Your task to perform on an android device: turn pop-ups off in chrome Image 0: 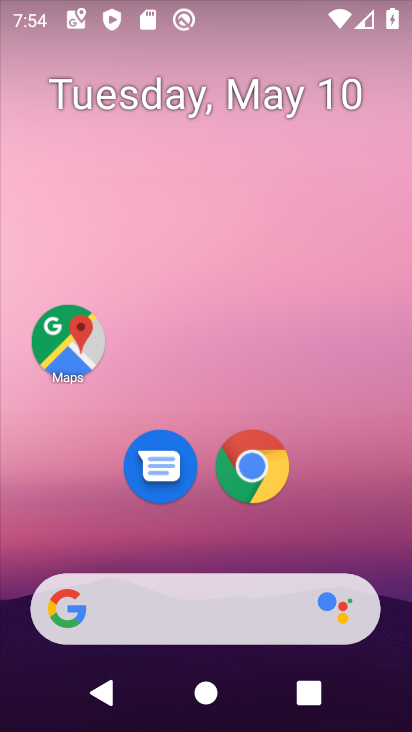
Step 0: click (249, 456)
Your task to perform on an android device: turn pop-ups off in chrome Image 1: 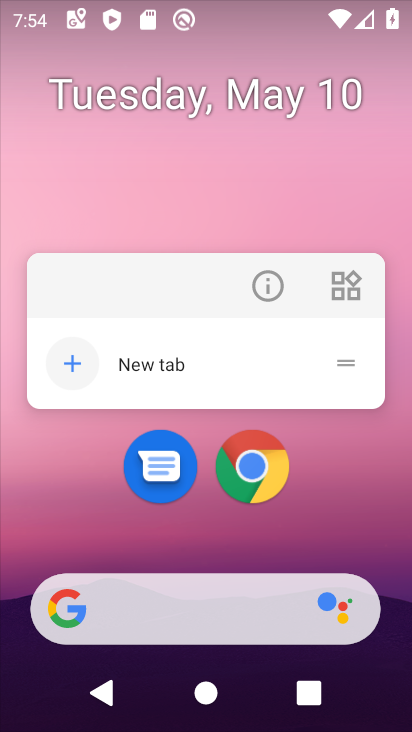
Step 1: click (249, 456)
Your task to perform on an android device: turn pop-ups off in chrome Image 2: 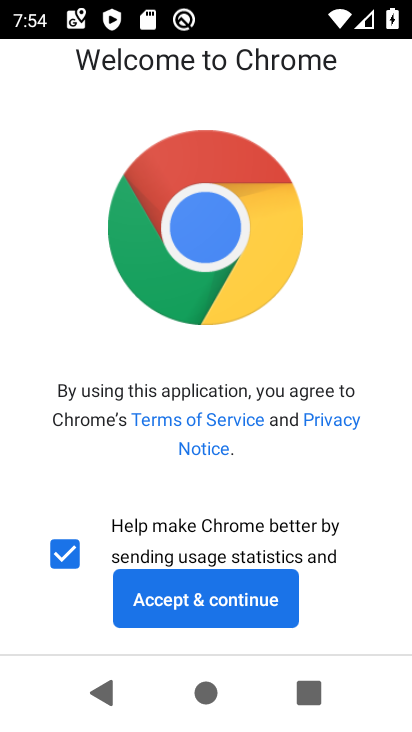
Step 2: click (211, 592)
Your task to perform on an android device: turn pop-ups off in chrome Image 3: 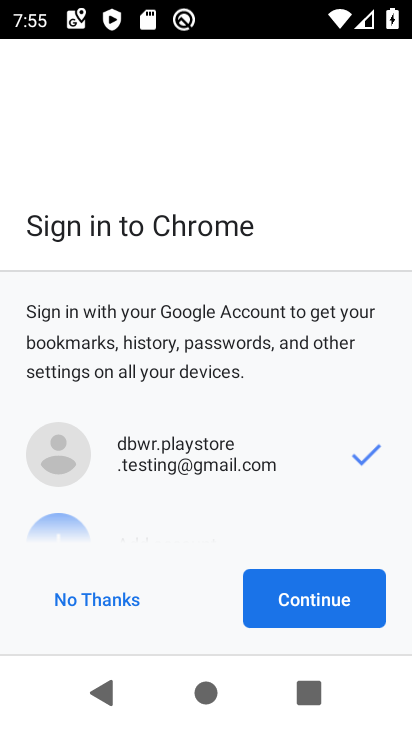
Step 3: click (356, 610)
Your task to perform on an android device: turn pop-ups off in chrome Image 4: 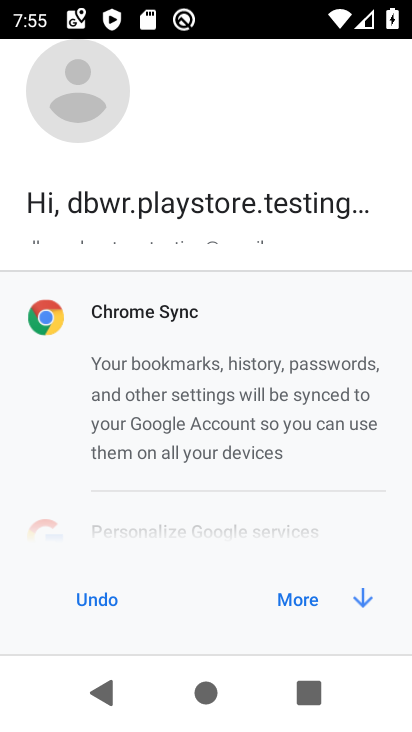
Step 4: click (357, 609)
Your task to perform on an android device: turn pop-ups off in chrome Image 5: 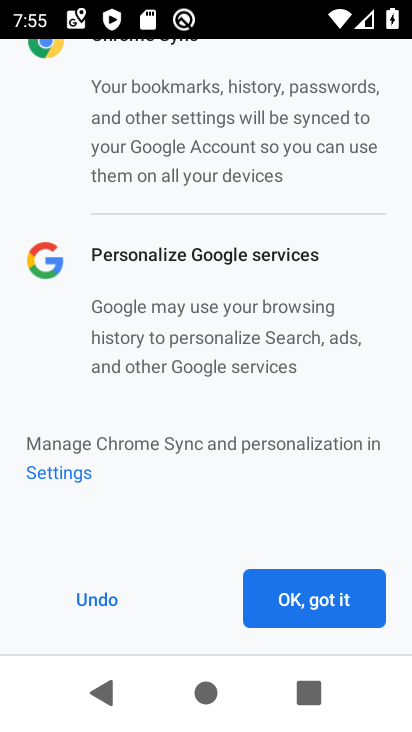
Step 5: click (357, 609)
Your task to perform on an android device: turn pop-ups off in chrome Image 6: 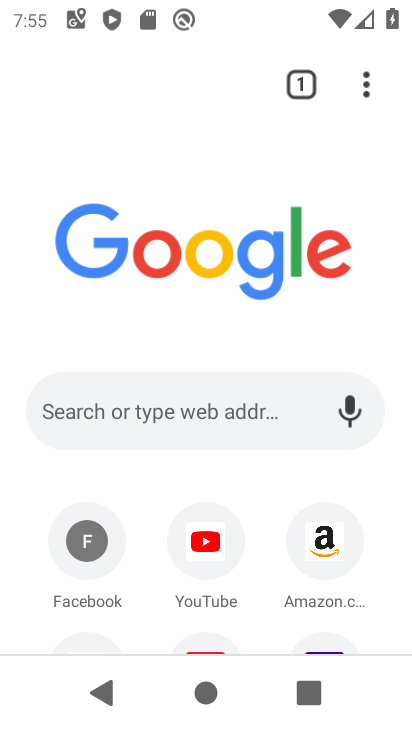
Step 6: click (368, 80)
Your task to perform on an android device: turn pop-ups off in chrome Image 7: 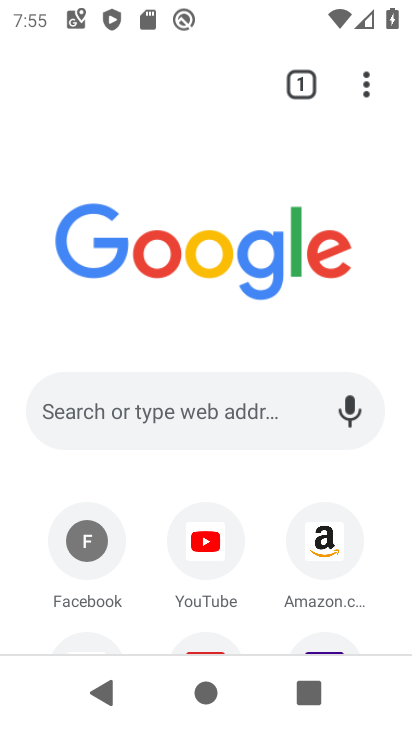
Step 7: click (358, 102)
Your task to perform on an android device: turn pop-ups off in chrome Image 8: 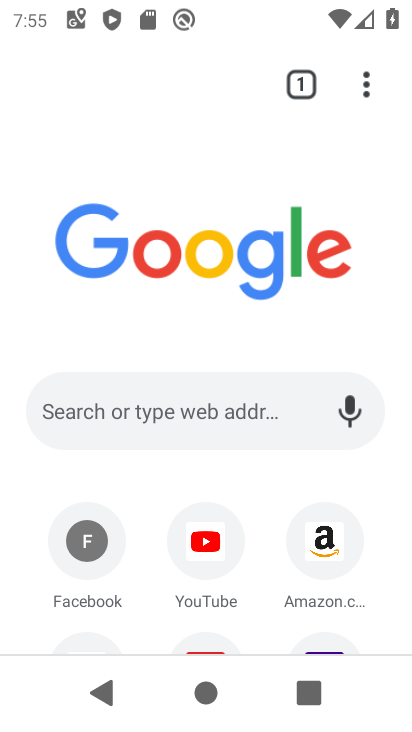
Step 8: click (369, 103)
Your task to perform on an android device: turn pop-ups off in chrome Image 9: 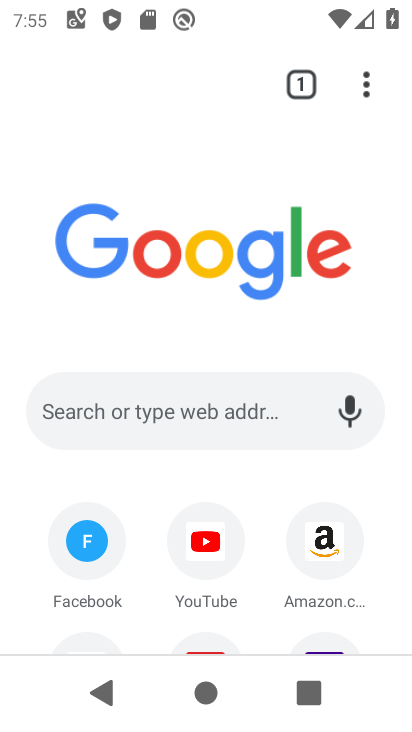
Step 9: click (376, 88)
Your task to perform on an android device: turn pop-ups off in chrome Image 10: 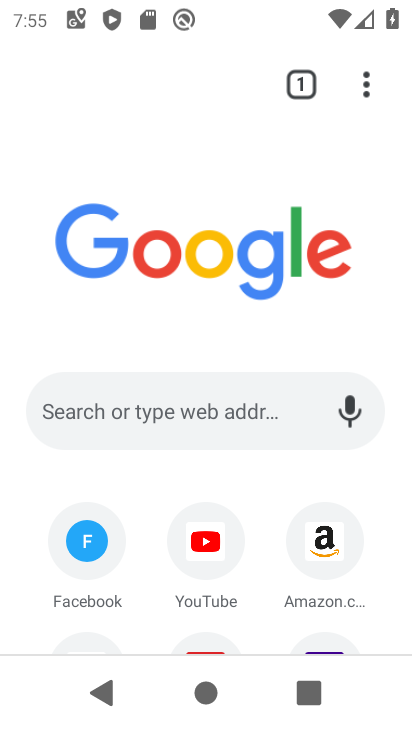
Step 10: click (375, 104)
Your task to perform on an android device: turn pop-ups off in chrome Image 11: 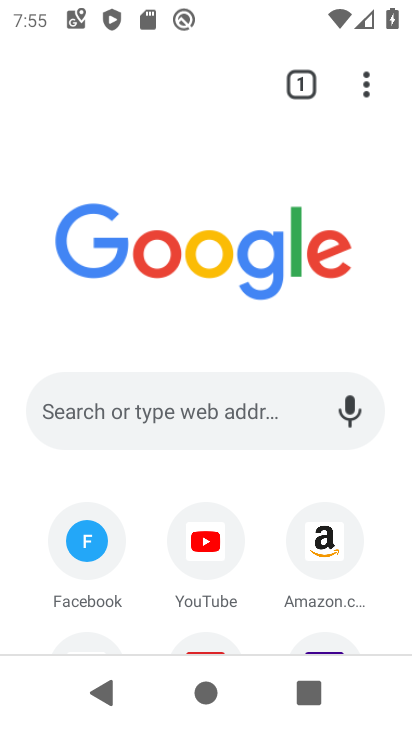
Step 11: click (400, 101)
Your task to perform on an android device: turn pop-ups off in chrome Image 12: 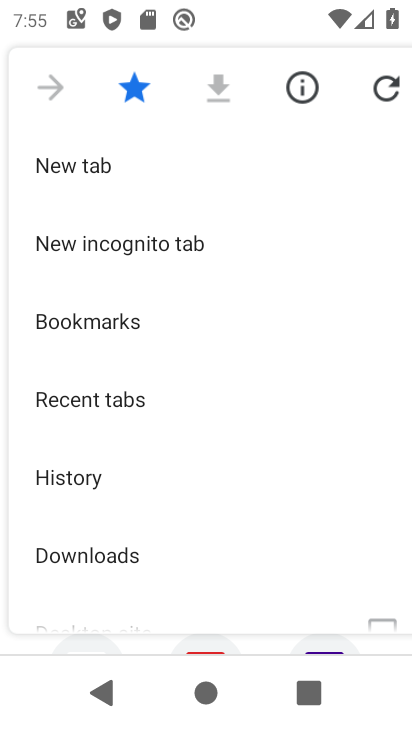
Step 12: drag from (212, 568) to (340, 174)
Your task to perform on an android device: turn pop-ups off in chrome Image 13: 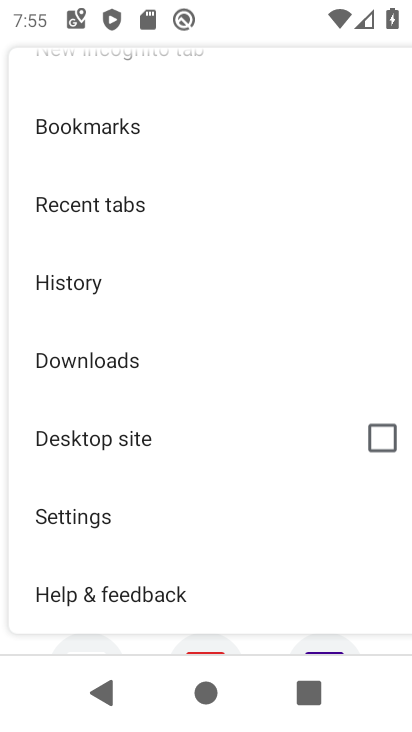
Step 13: click (108, 501)
Your task to perform on an android device: turn pop-ups off in chrome Image 14: 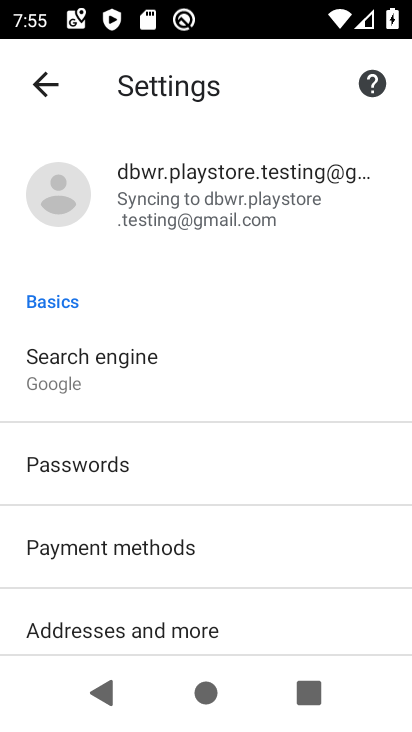
Step 14: drag from (102, 542) to (150, 221)
Your task to perform on an android device: turn pop-ups off in chrome Image 15: 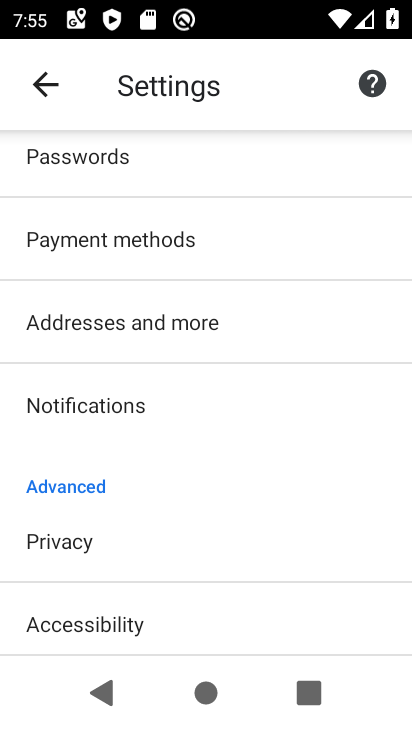
Step 15: drag from (98, 548) to (89, 305)
Your task to perform on an android device: turn pop-ups off in chrome Image 16: 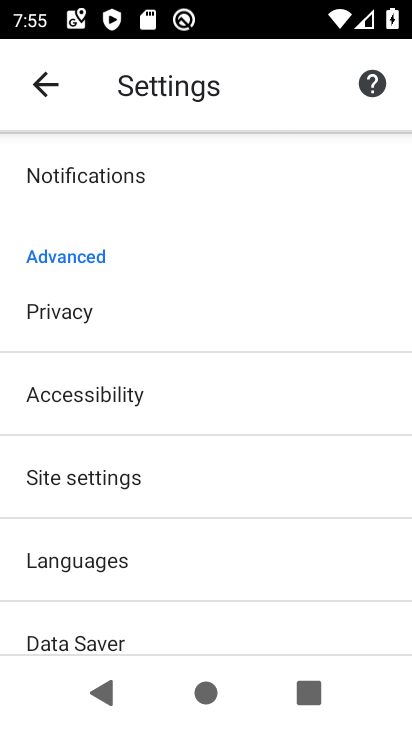
Step 16: click (123, 483)
Your task to perform on an android device: turn pop-ups off in chrome Image 17: 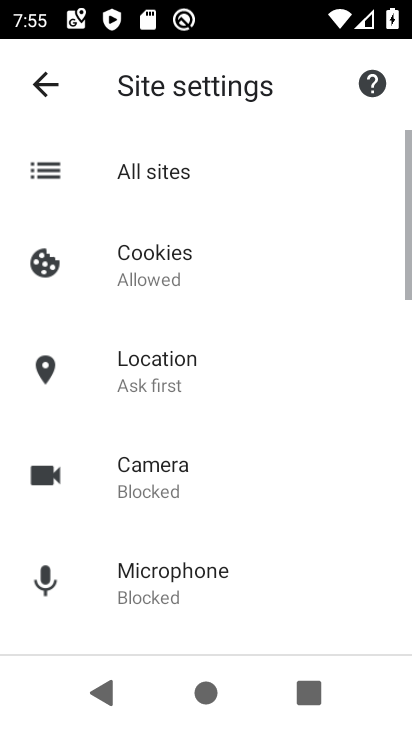
Step 17: drag from (148, 563) to (144, 246)
Your task to perform on an android device: turn pop-ups off in chrome Image 18: 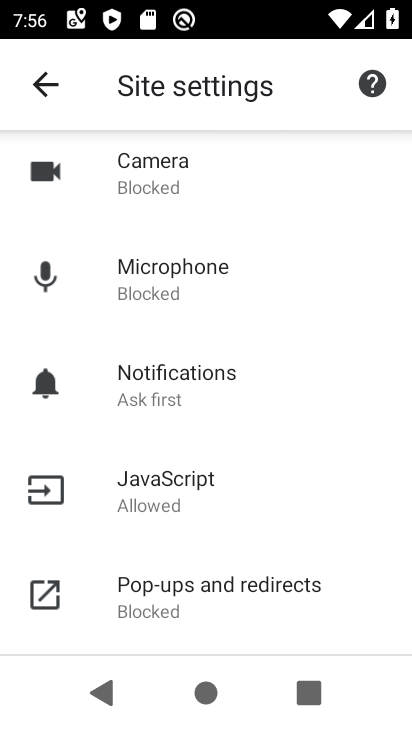
Step 18: click (139, 595)
Your task to perform on an android device: turn pop-ups off in chrome Image 19: 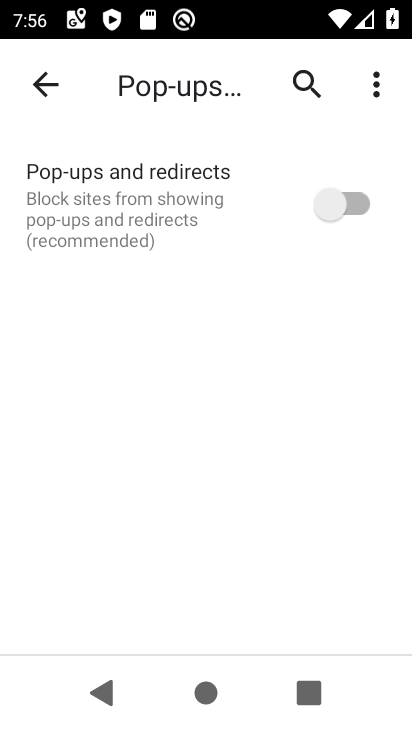
Step 19: task complete